Your task to perform on an android device: open app "LinkedIn" (install if not already installed) and go to login screen Image 0: 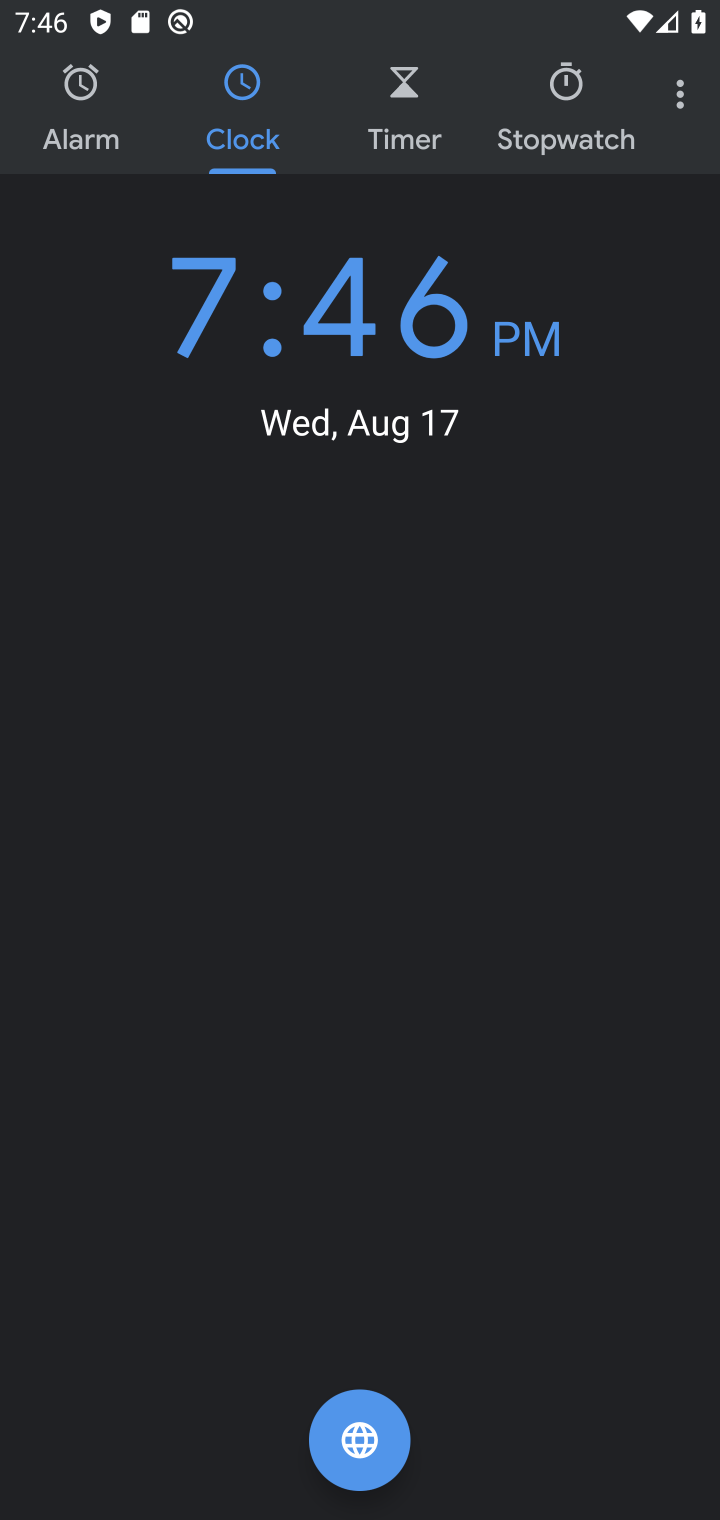
Step 0: press home button
Your task to perform on an android device: open app "LinkedIn" (install if not already installed) and go to login screen Image 1: 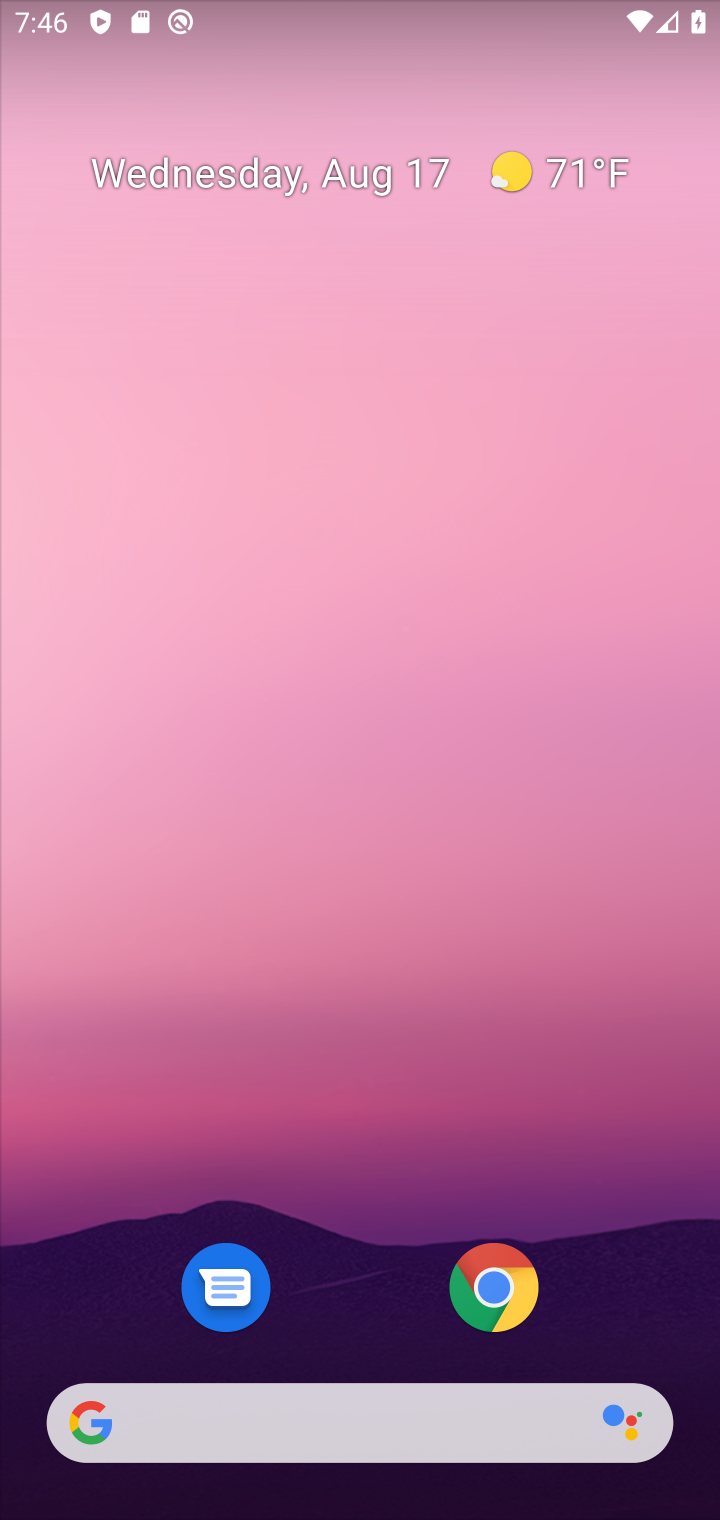
Step 1: drag from (423, 1364) to (361, 262)
Your task to perform on an android device: open app "LinkedIn" (install if not already installed) and go to login screen Image 2: 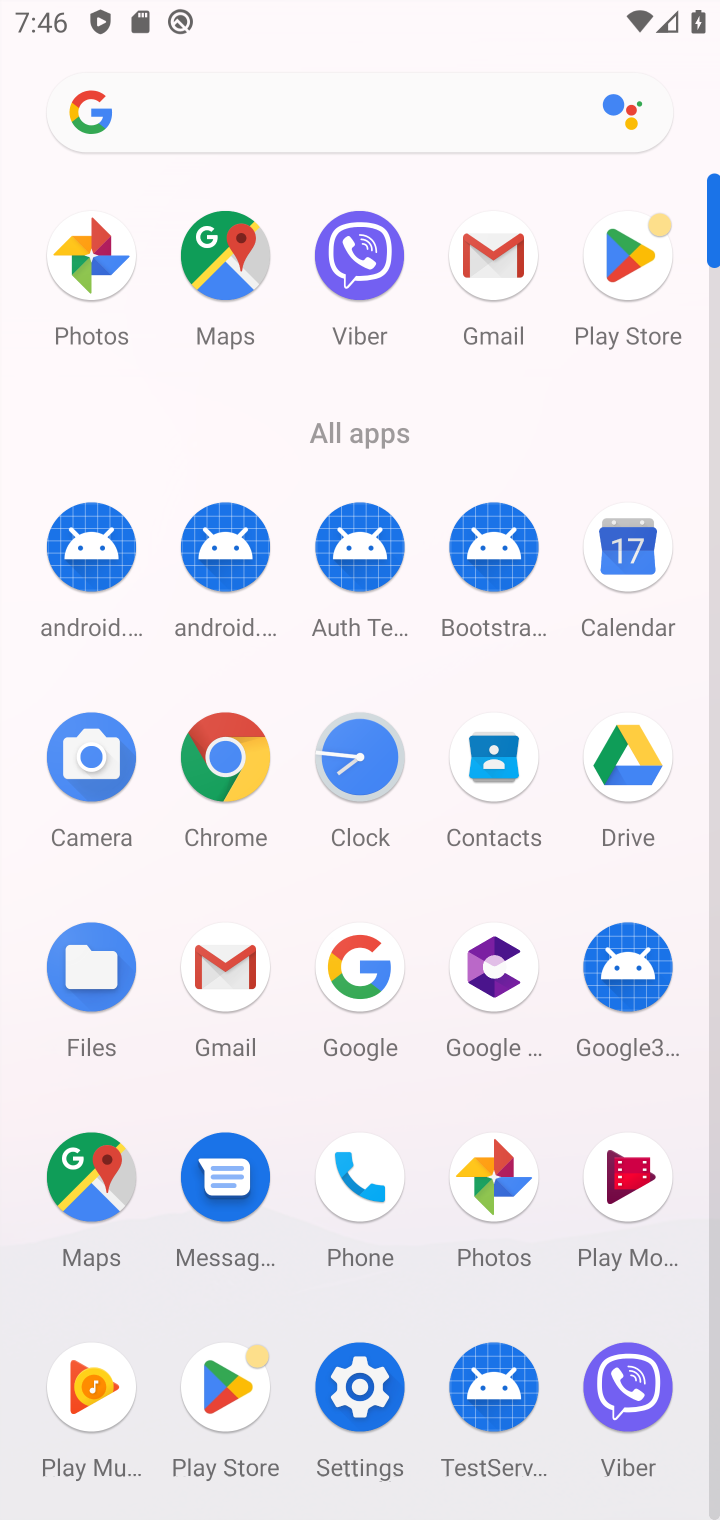
Step 2: click (614, 269)
Your task to perform on an android device: open app "LinkedIn" (install if not already installed) and go to login screen Image 3: 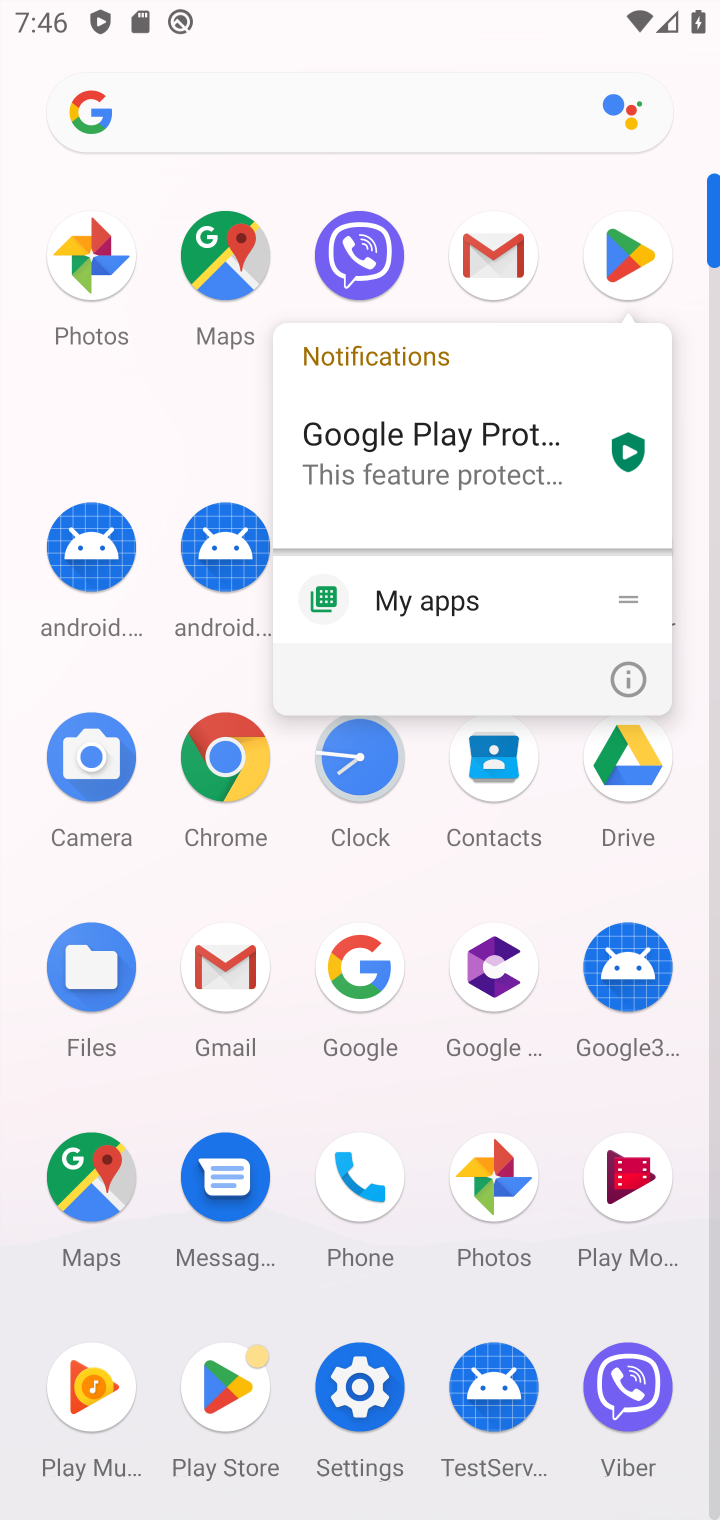
Step 3: click (614, 269)
Your task to perform on an android device: open app "LinkedIn" (install if not already installed) and go to login screen Image 4: 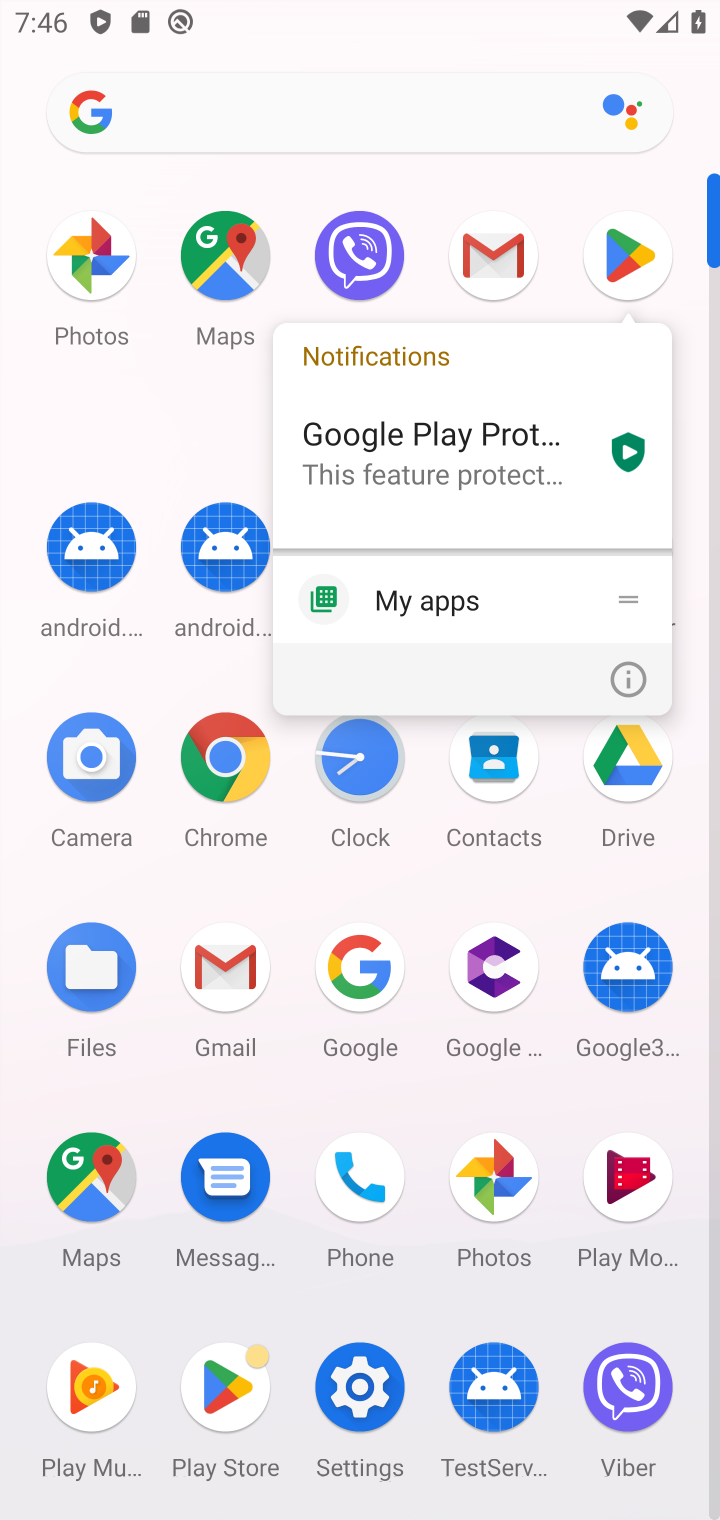
Step 4: click (614, 269)
Your task to perform on an android device: open app "LinkedIn" (install if not already installed) and go to login screen Image 5: 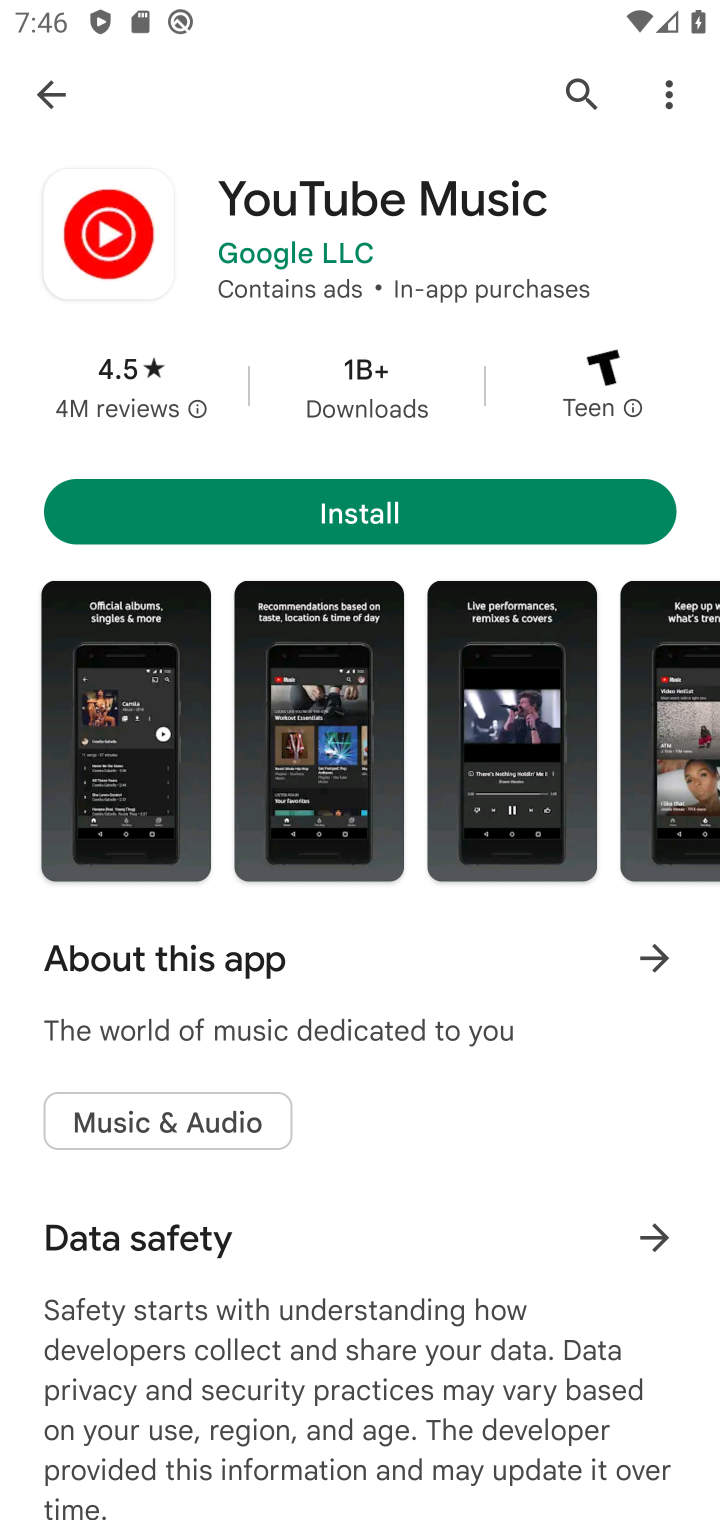
Step 5: click (575, 117)
Your task to perform on an android device: open app "LinkedIn" (install if not already installed) and go to login screen Image 6: 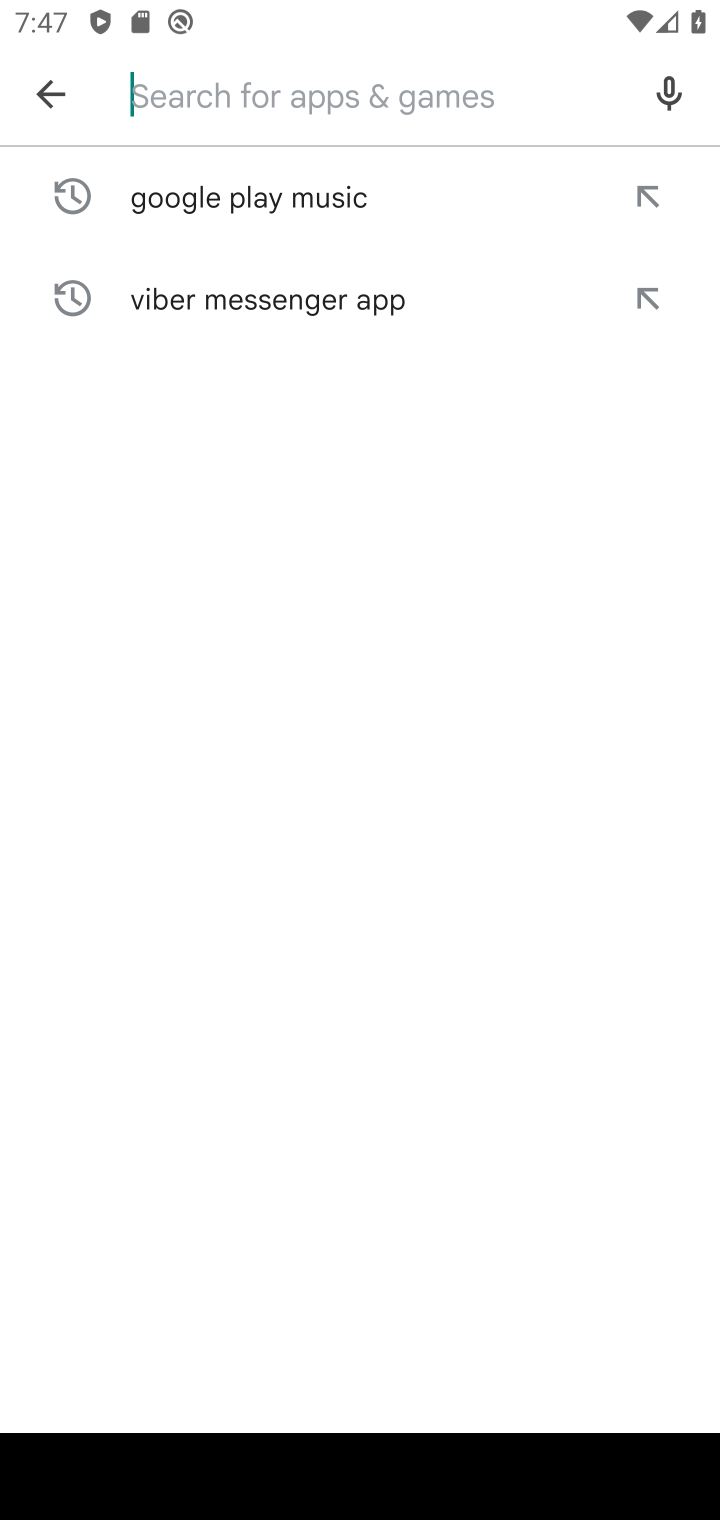
Step 6: type "linkedin"
Your task to perform on an android device: open app "LinkedIn" (install if not already installed) and go to login screen Image 7: 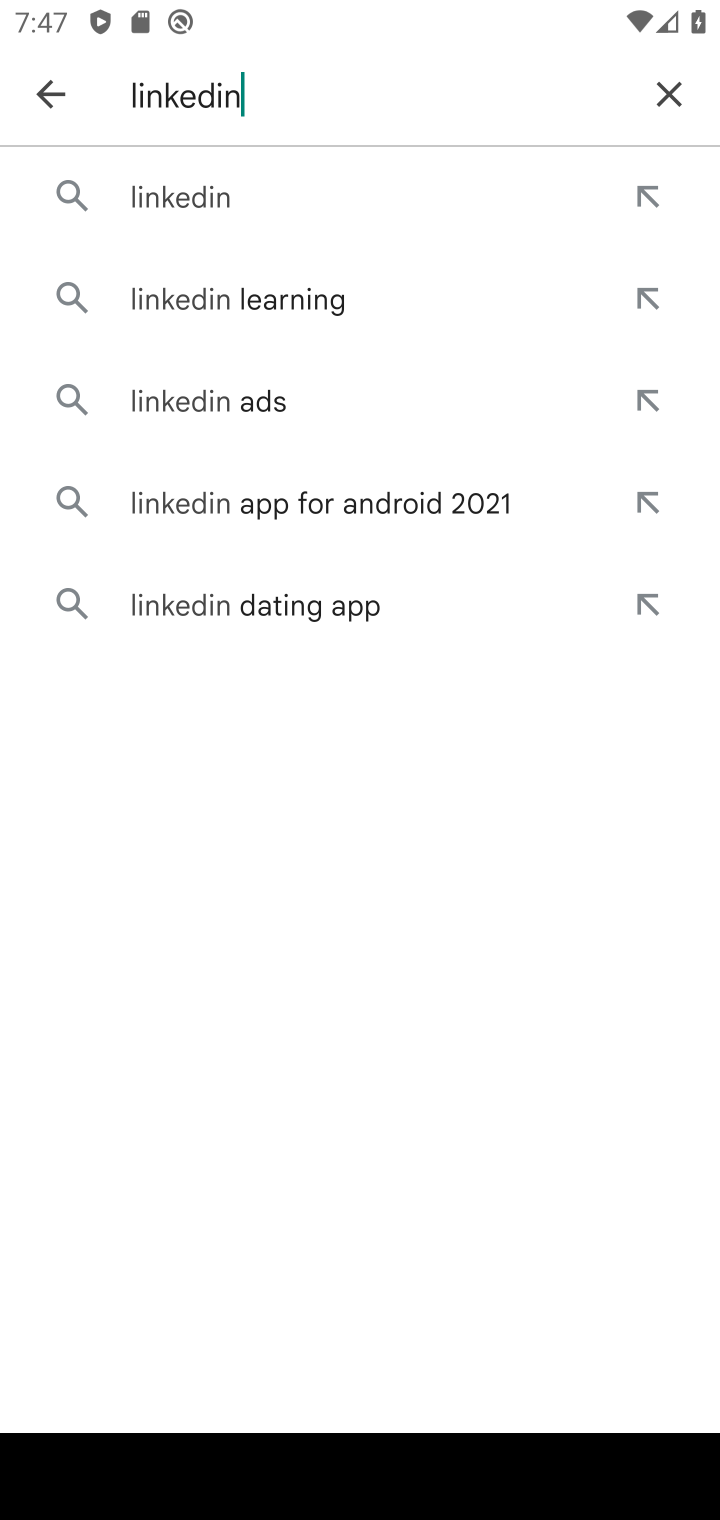
Step 7: click (203, 203)
Your task to perform on an android device: open app "LinkedIn" (install if not already installed) and go to login screen Image 8: 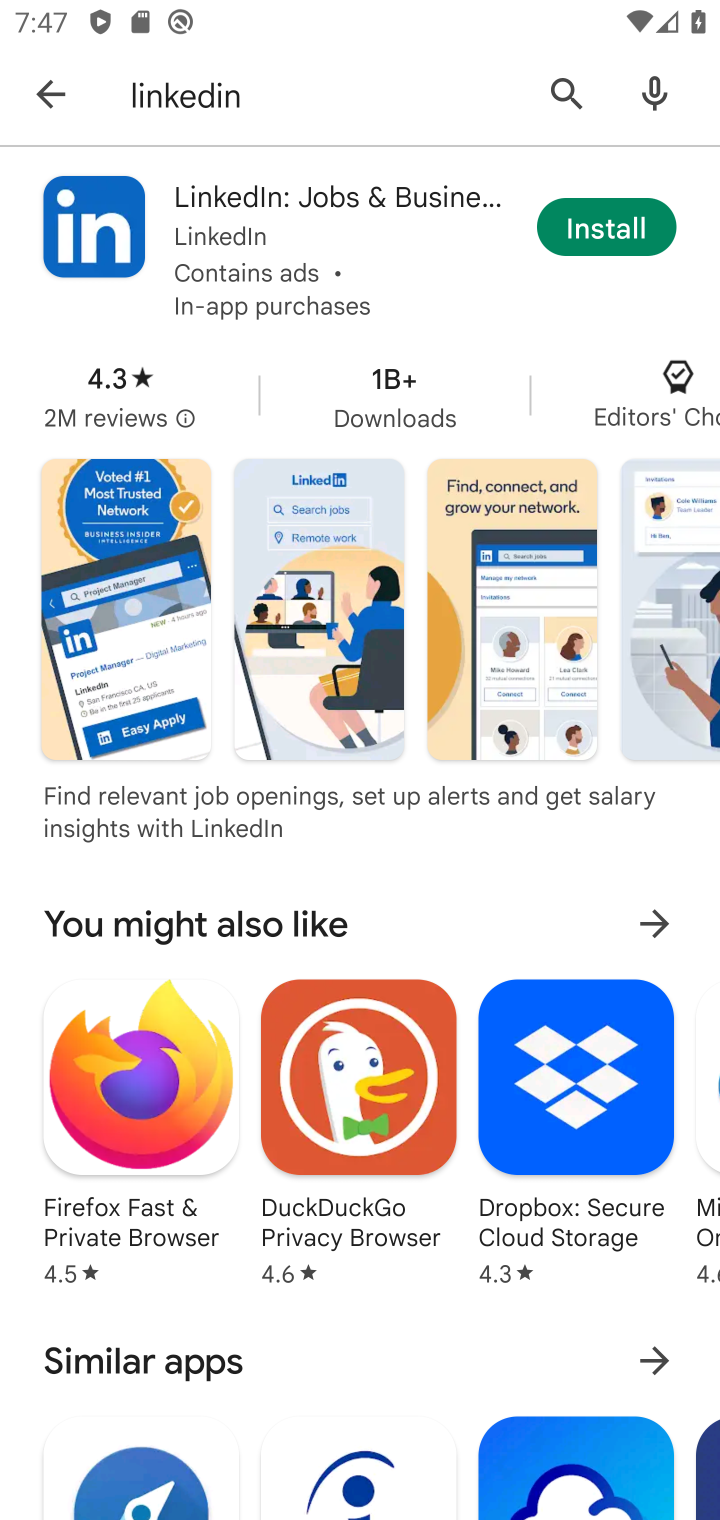
Step 8: click (637, 221)
Your task to perform on an android device: open app "LinkedIn" (install if not already installed) and go to login screen Image 9: 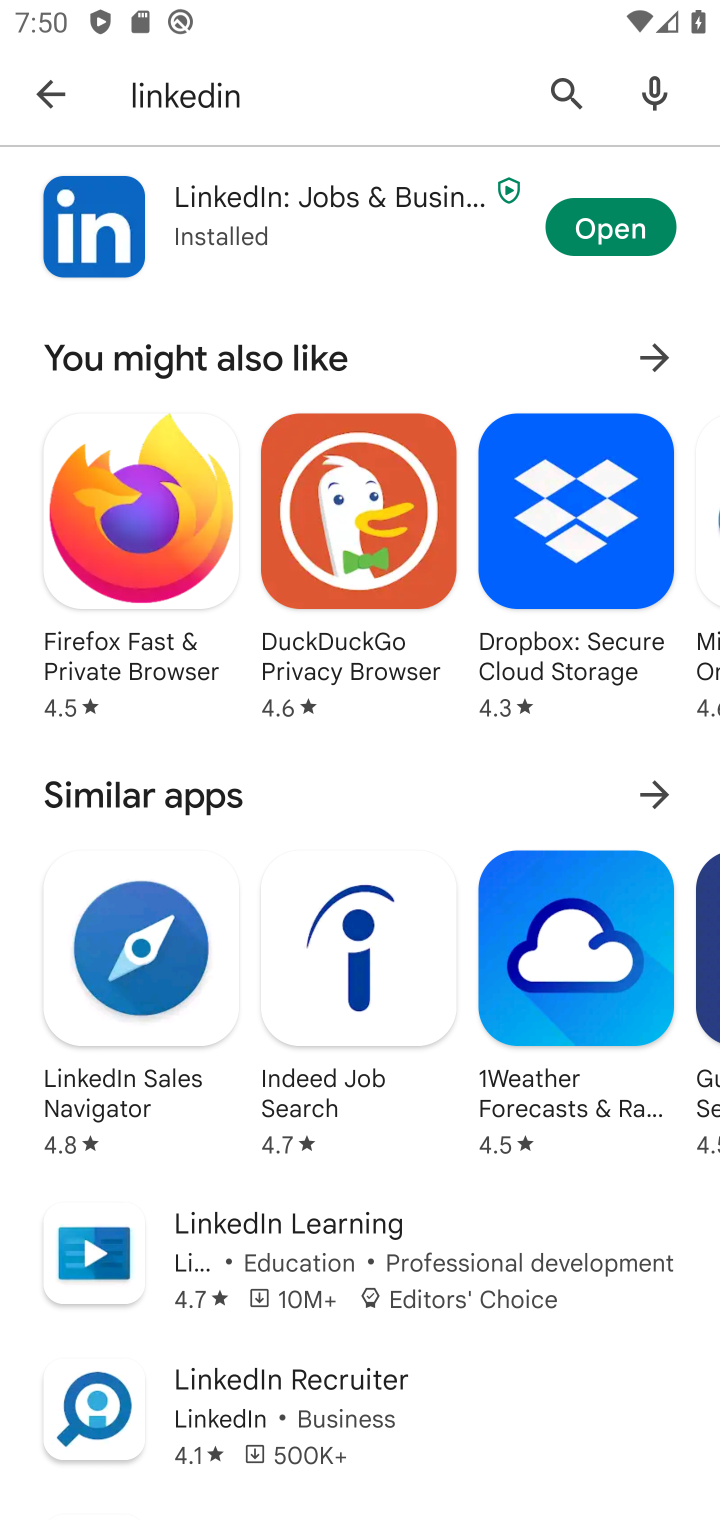
Step 9: click (590, 219)
Your task to perform on an android device: open app "LinkedIn" (install if not already installed) and go to login screen Image 10: 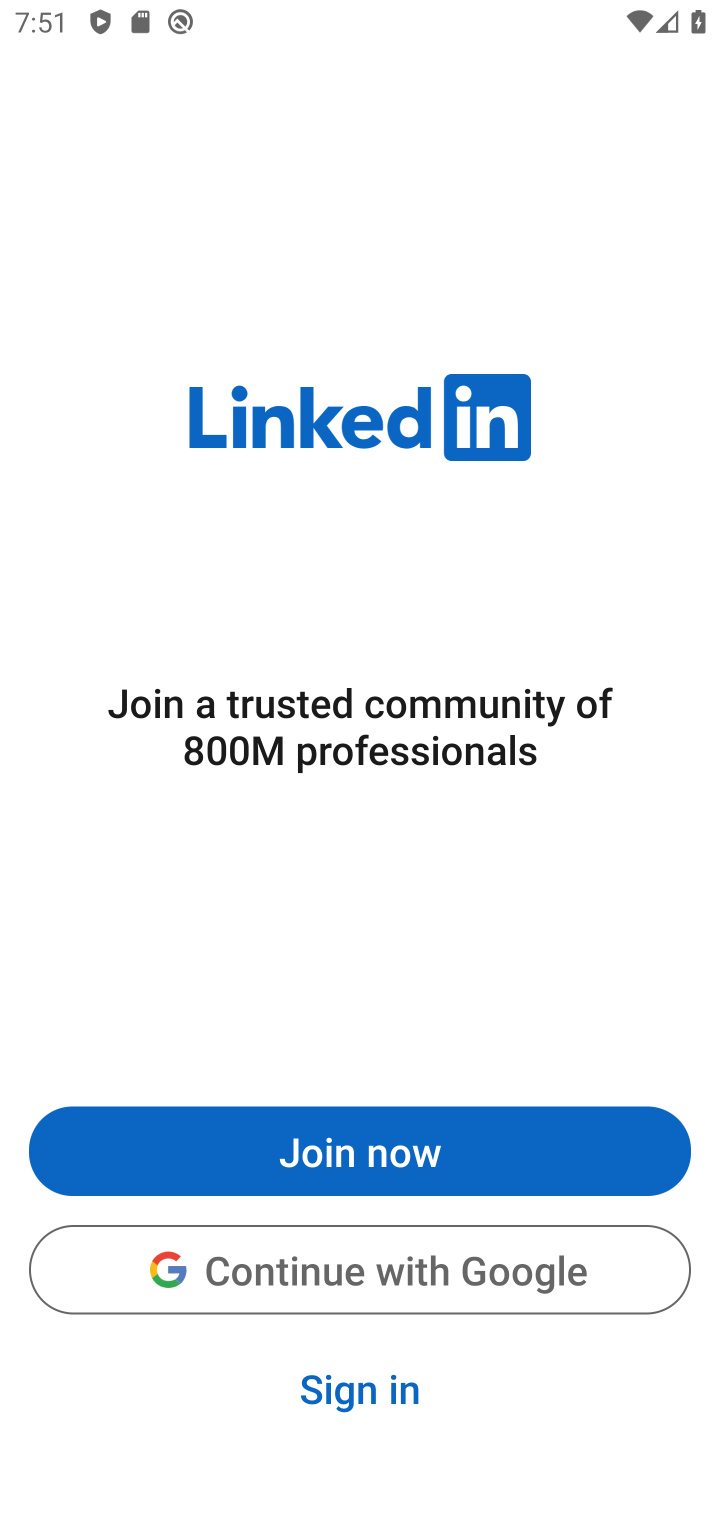
Step 10: click (356, 1395)
Your task to perform on an android device: open app "LinkedIn" (install if not already installed) and go to login screen Image 11: 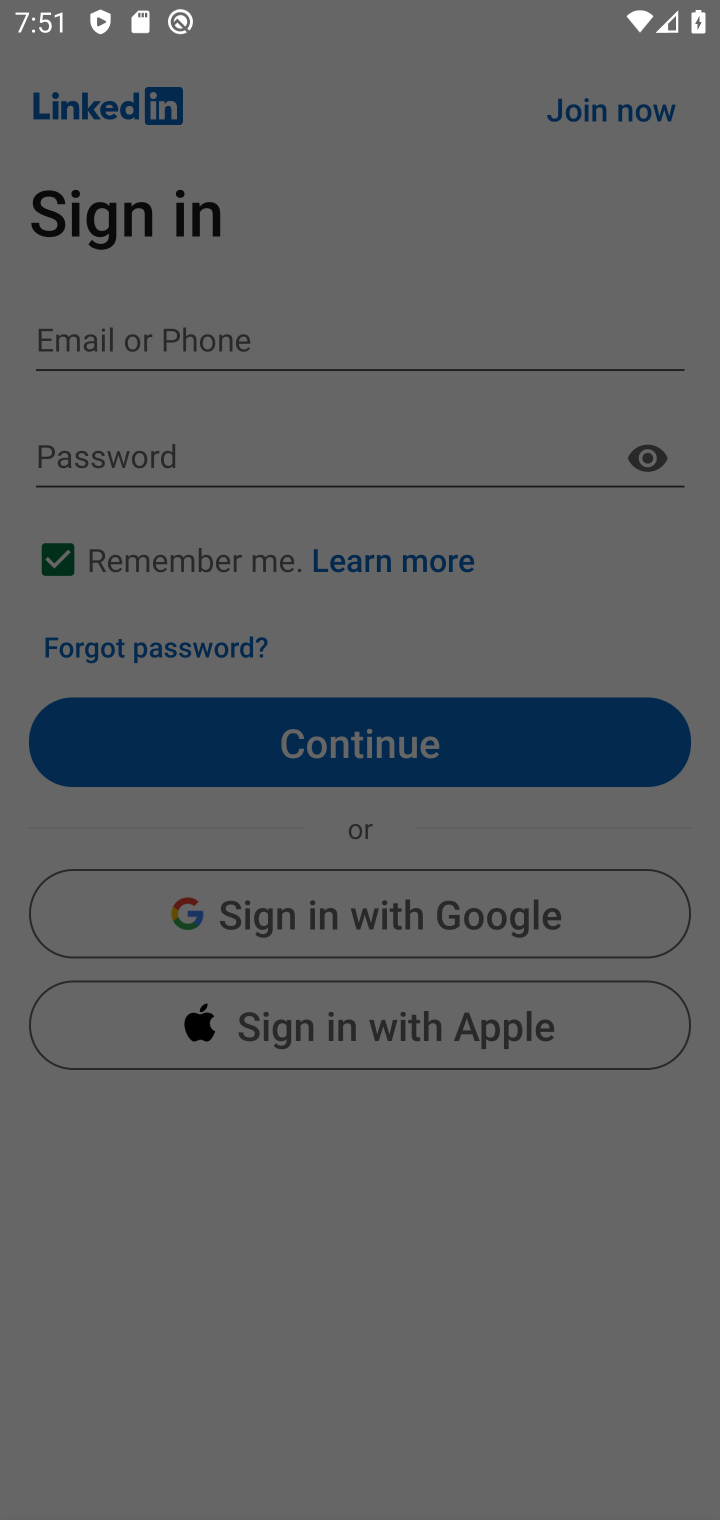
Step 11: task complete